Your task to perform on an android device: delete location history Image 0: 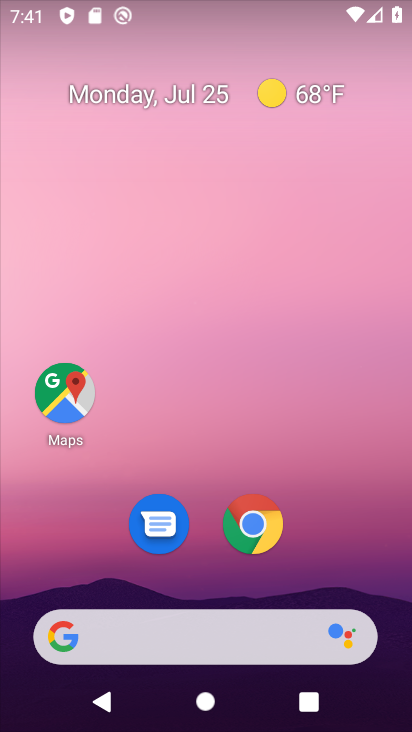
Step 0: click (67, 401)
Your task to perform on an android device: delete location history Image 1: 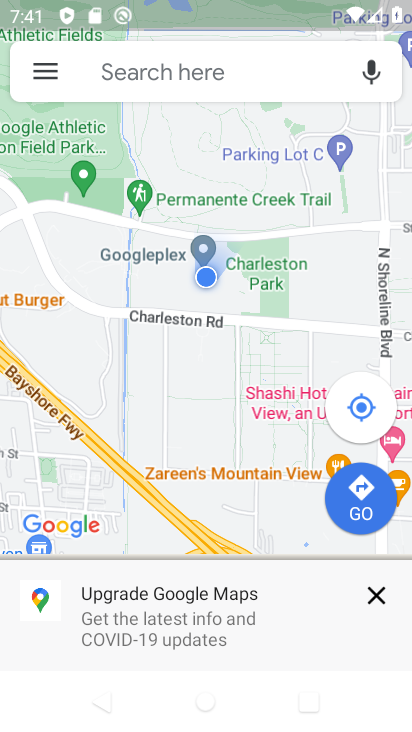
Step 1: click (47, 69)
Your task to perform on an android device: delete location history Image 2: 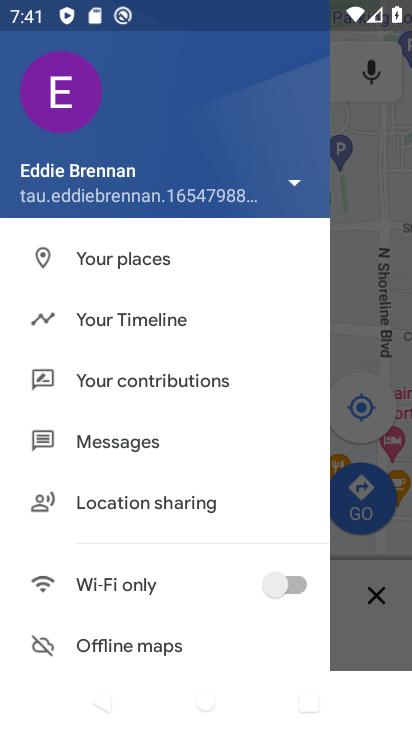
Step 2: click (107, 308)
Your task to perform on an android device: delete location history Image 3: 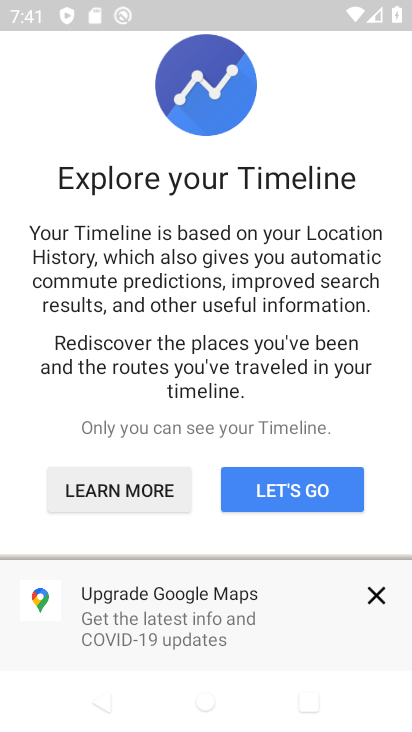
Step 3: click (304, 495)
Your task to perform on an android device: delete location history Image 4: 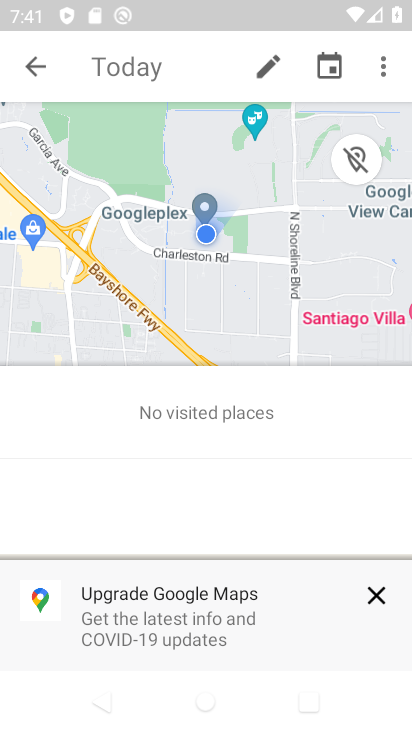
Step 4: click (378, 70)
Your task to perform on an android device: delete location history Image 5: 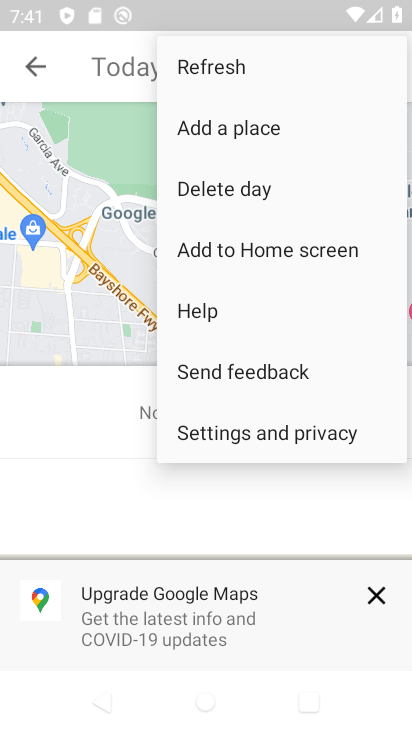
Step 5: click (305, 430)
Your task to perform on an android device: delete location history Image 6: 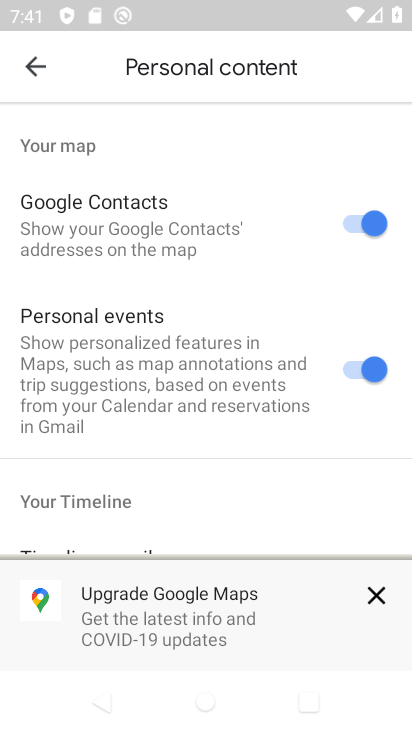
Step 6: drag from (242, 493) to (221, 254)
Your task to perform on an android device: delete location history Image 7: 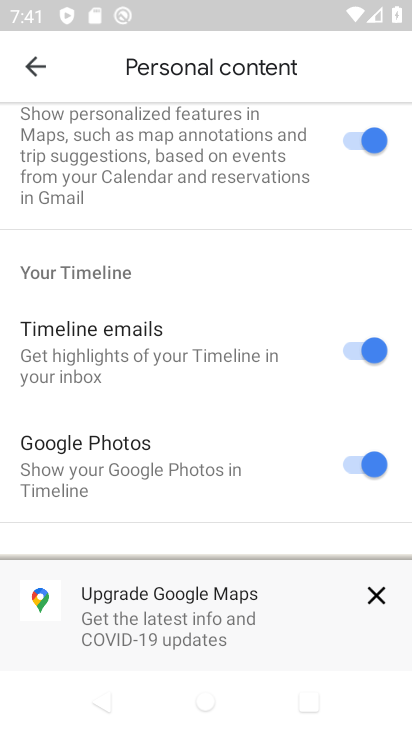
Step 7: drag from (218, 499) to (248, 154)
Your task to perform on an android device: delete location history Image 8: 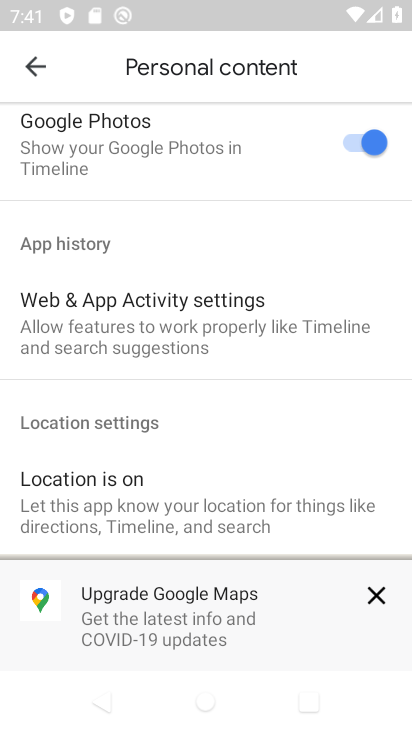
Step 8: drag from (223, 413) to (246, 297)
Your task to perform on an android device: delete location history Image 9: 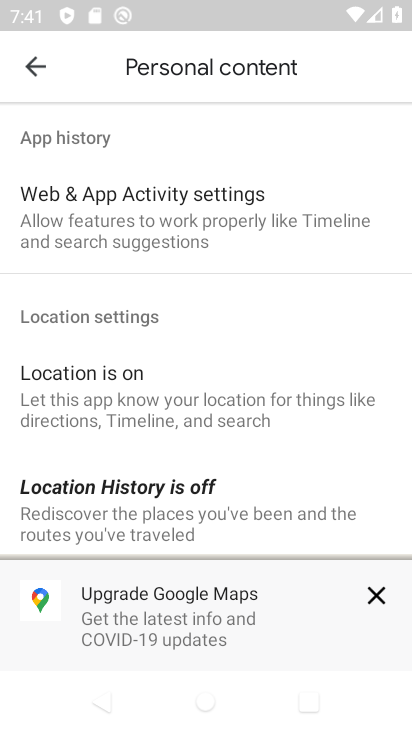
Step 9: drag from (243, 436) to (251, 147)
Your task to perform on an android device: delete location history Image 10: 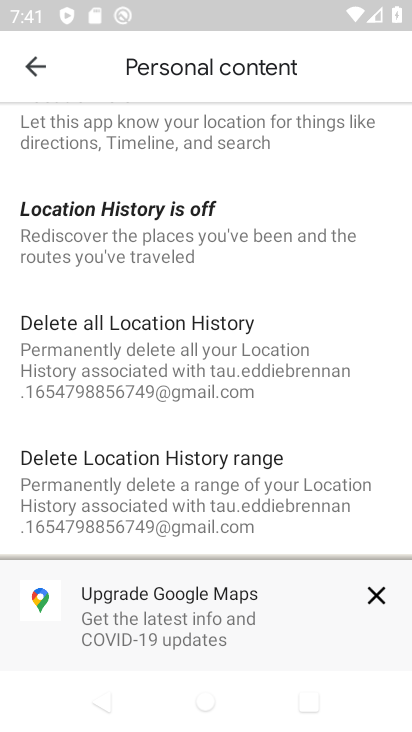
Step 10: click (202, 341)
Your task to perform on an android device: delete location history Image 11: 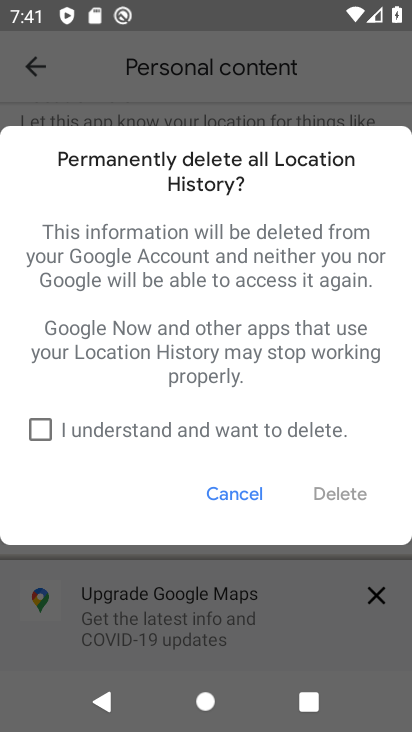
Step 11: click (47, 428)
Your task to perform on an android device: delete location history Image 12: 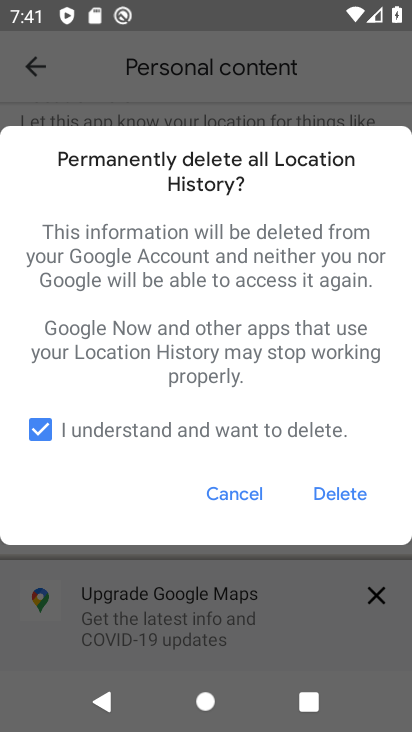
Step 12: click (331, 493)
Your task to perform on an android device: delete location history Image 13: 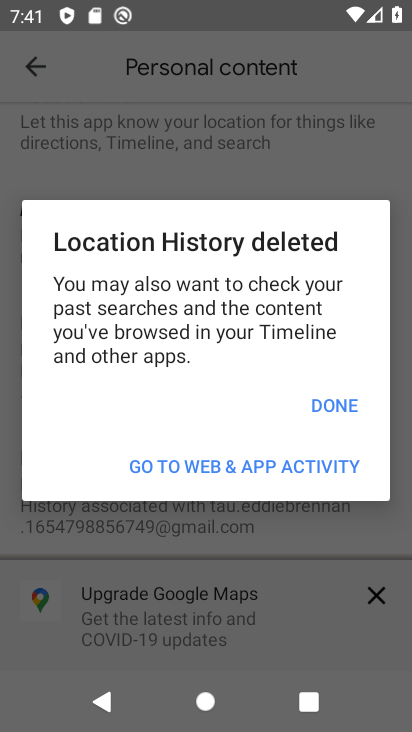
Step 13: click (345, 401)
Your task to perform on an android device: delete location history Image 14: 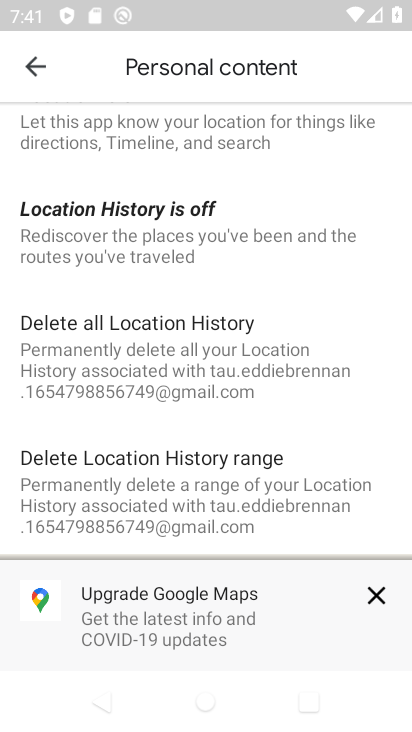
Step 14: click (264, 350)
Your task to perform on an android device: delete location history Image 15: 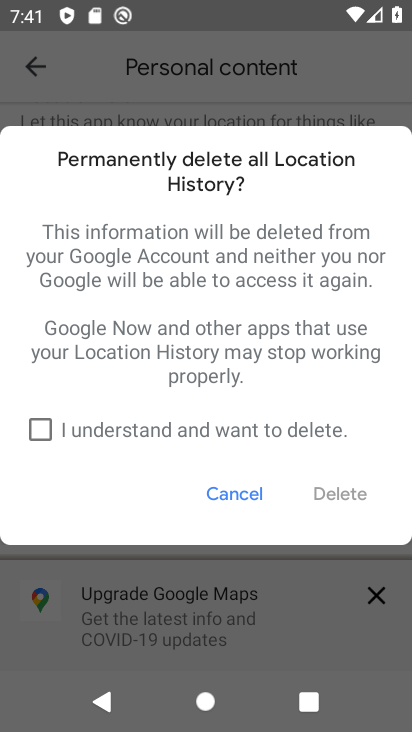
Step 15: click (43, 428)
Your task to perform on an android device: delete location history Image 16: 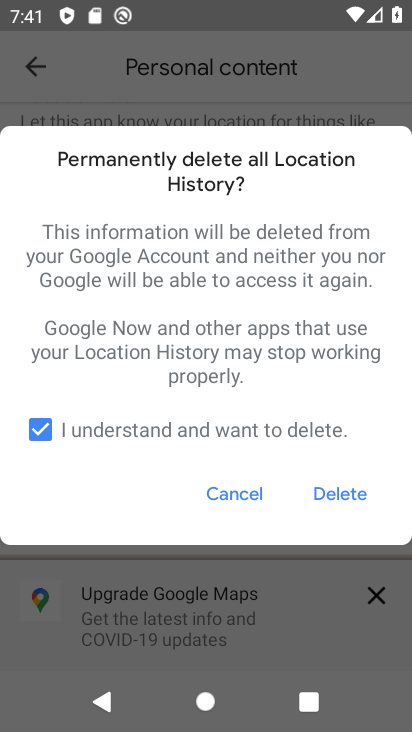
Step 16: click (329, 490)
Your task to perform on an android device: delete location history Image 17: 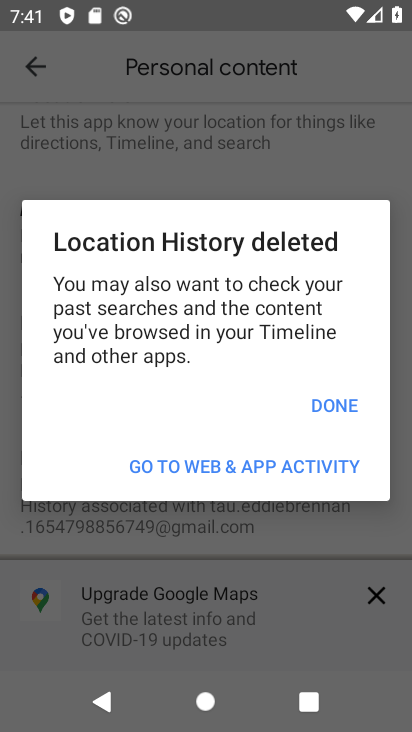
Step 17: click (338, 405)
Your task to perform on an android device: delete location history Image 18: 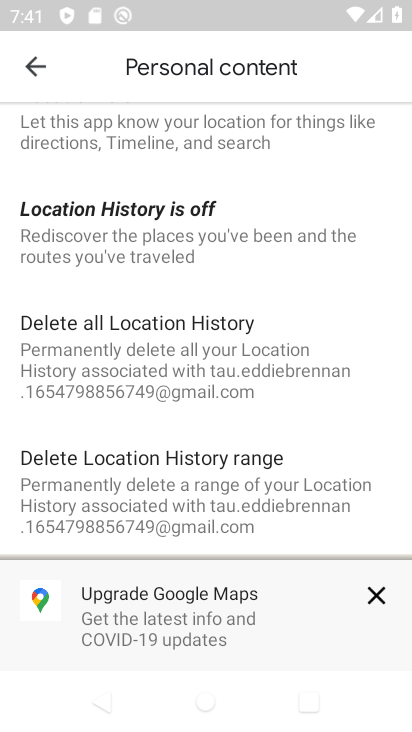
Step 18: task complete